Your task to perform on an android device: toggle wifi Image 0: 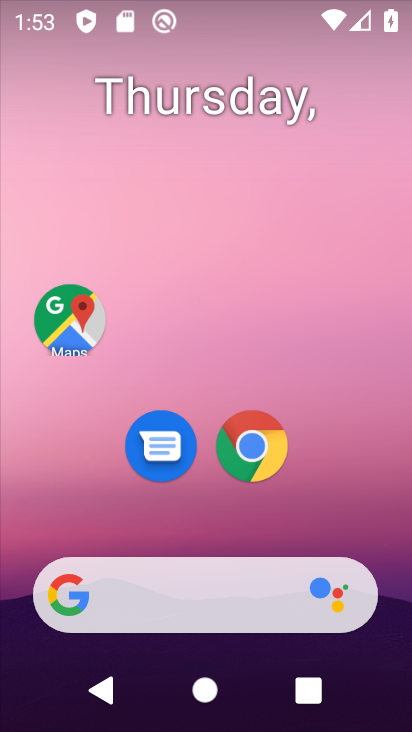
Step 0: drag from (316, 539) to (355, 210)
Your task to perform on an android device: toggle wifi Image 1: 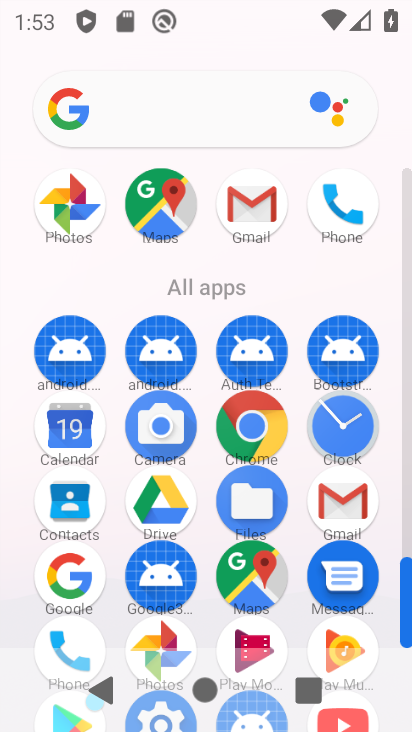
Step 1: drag from (213, 580) to (232, 233)
Your task to perform on an android device: toggle wifi Image 2: 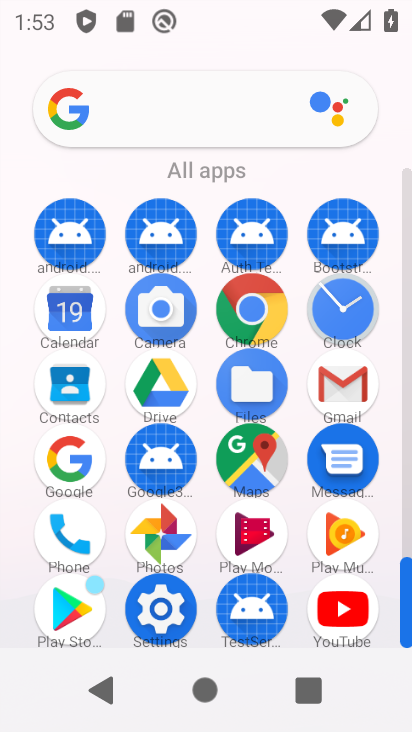
Step 2: click (159, 612)
Your task to perform on an android device: toggle wifi Image 3: 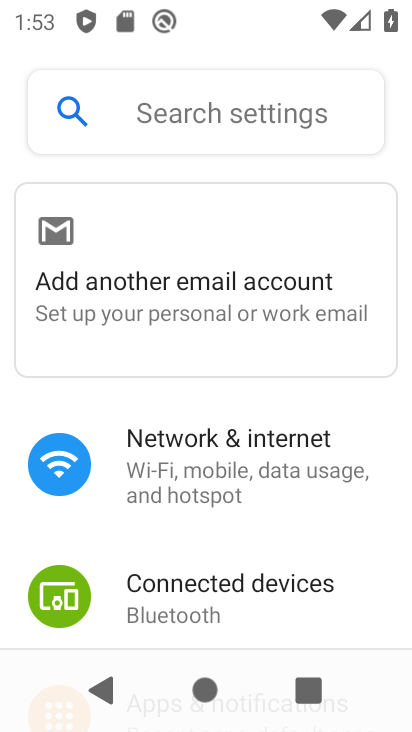
Step 3: click (208, 465)
Your task to perform on an android device: toggle wifi Image 4: 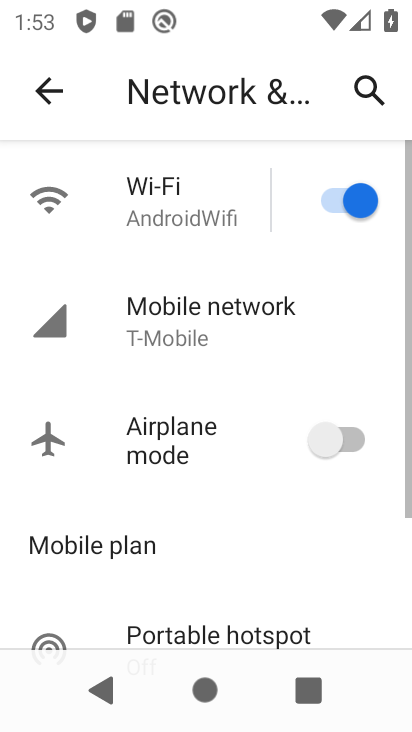
Step 4: click (359, 199)
Your task to perform on an android device: toggle wifi Image 5: 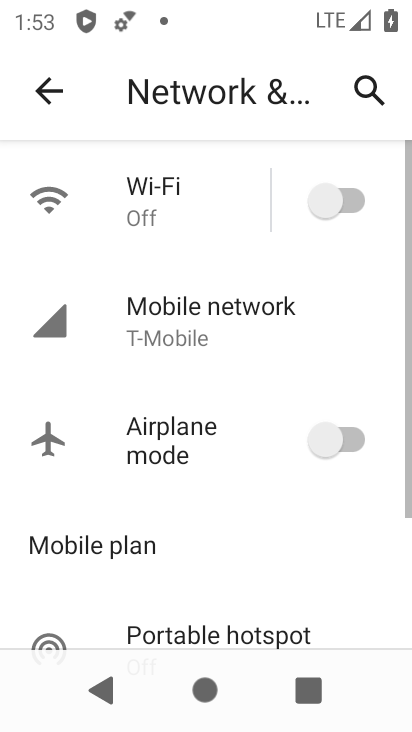
Step 5: task complete